Your task to perform on an android device: When is my next appointment? Image 0: 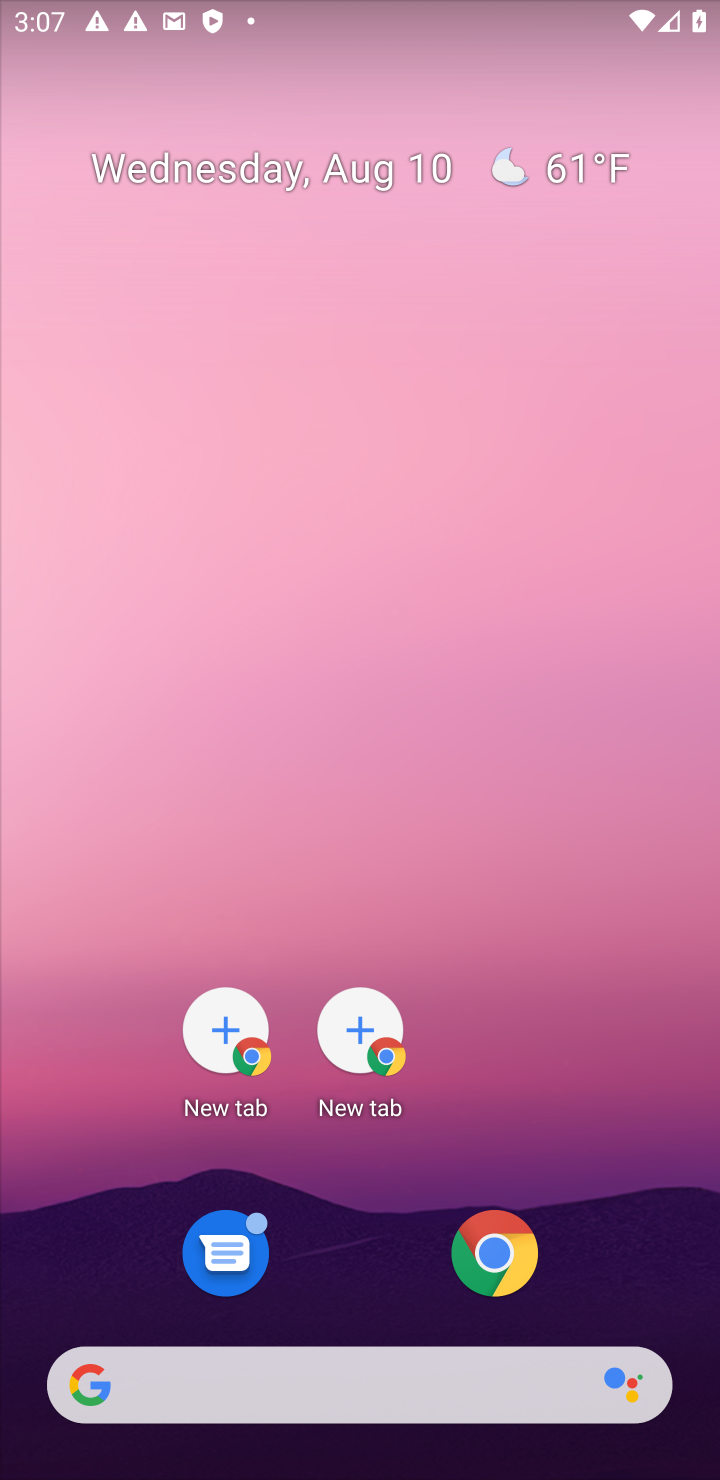
Step 0: drag from (533, 1055) to (569, 418)
Your task to perform on an android device: When is my next appointment? Image 1: 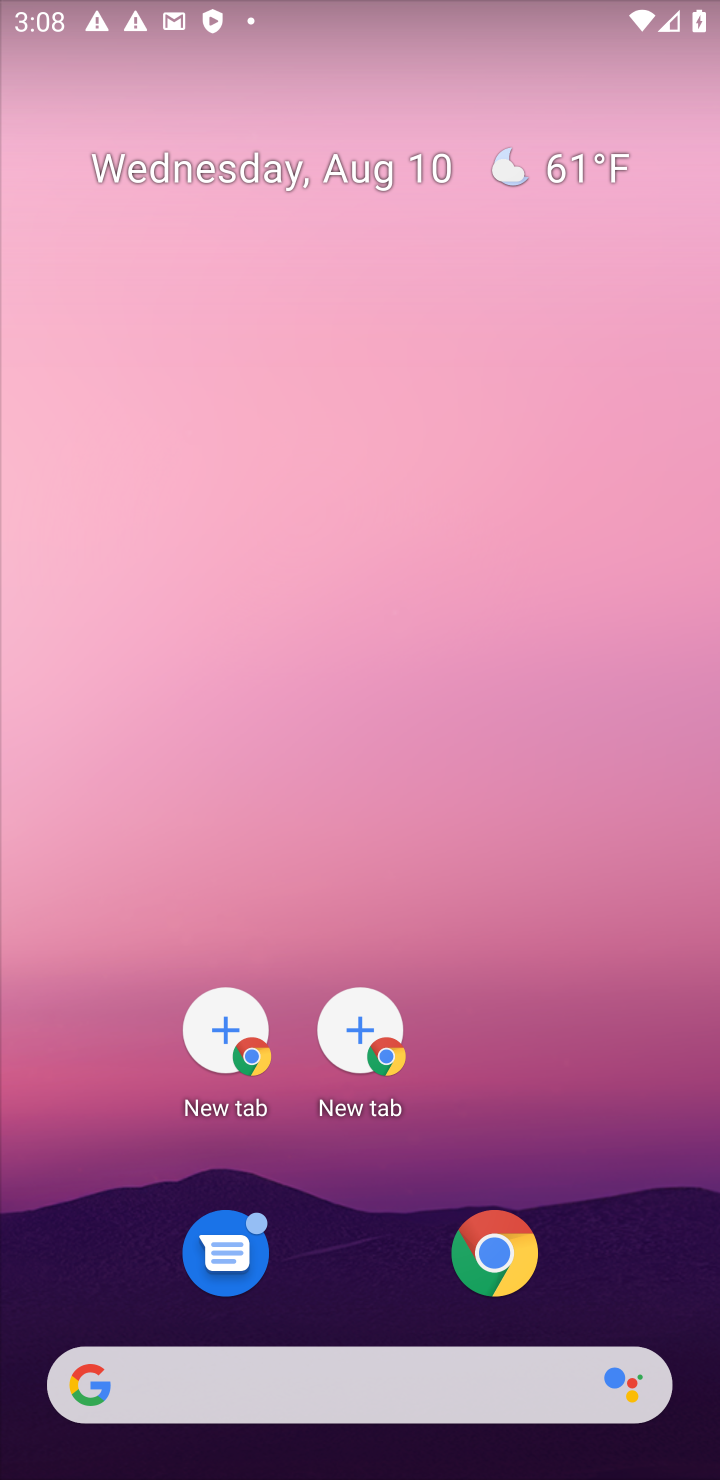
Step 1: click (501, 307)
Your task to perform on an android device: When is my next appointment? Image 2: 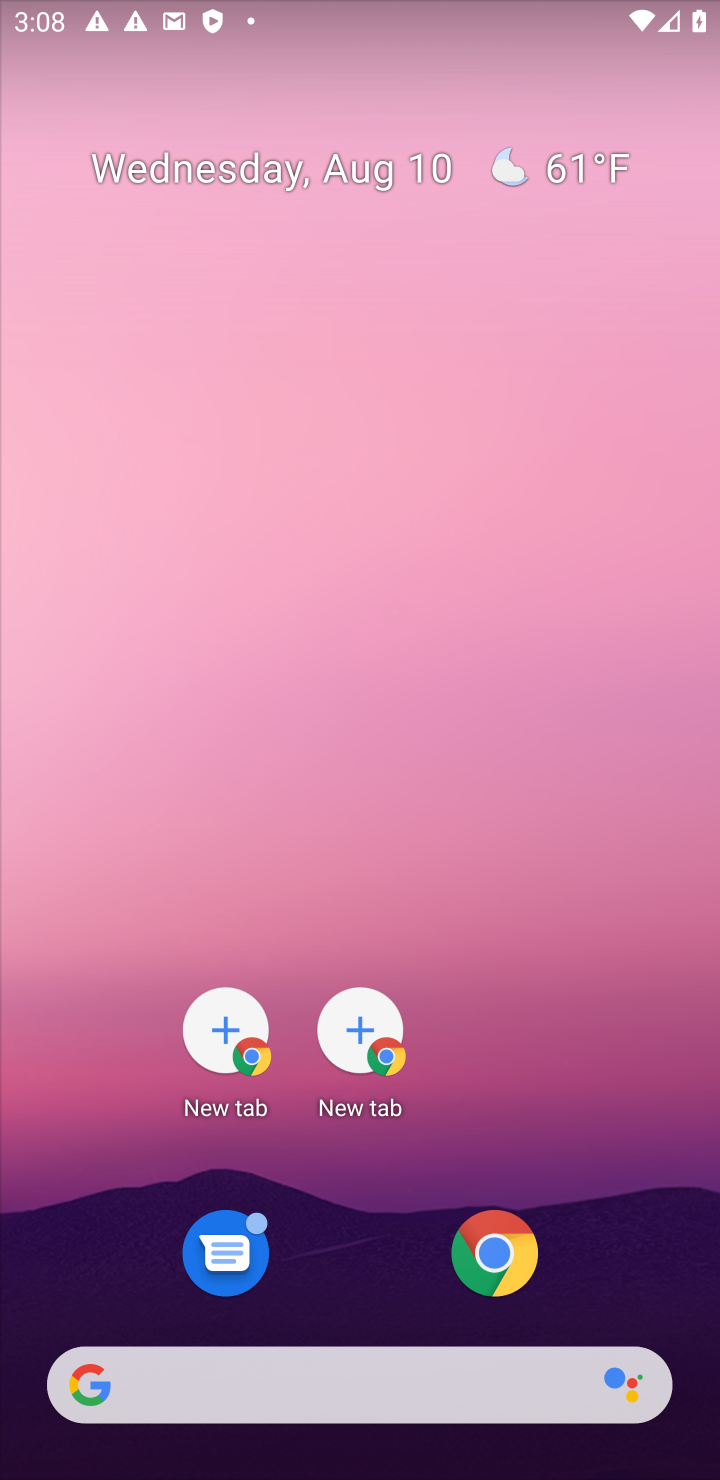
Step 2: drag from (466, 436) to (435, 23)
Your task to perform on an android device: When is my next appointment? Image 3: 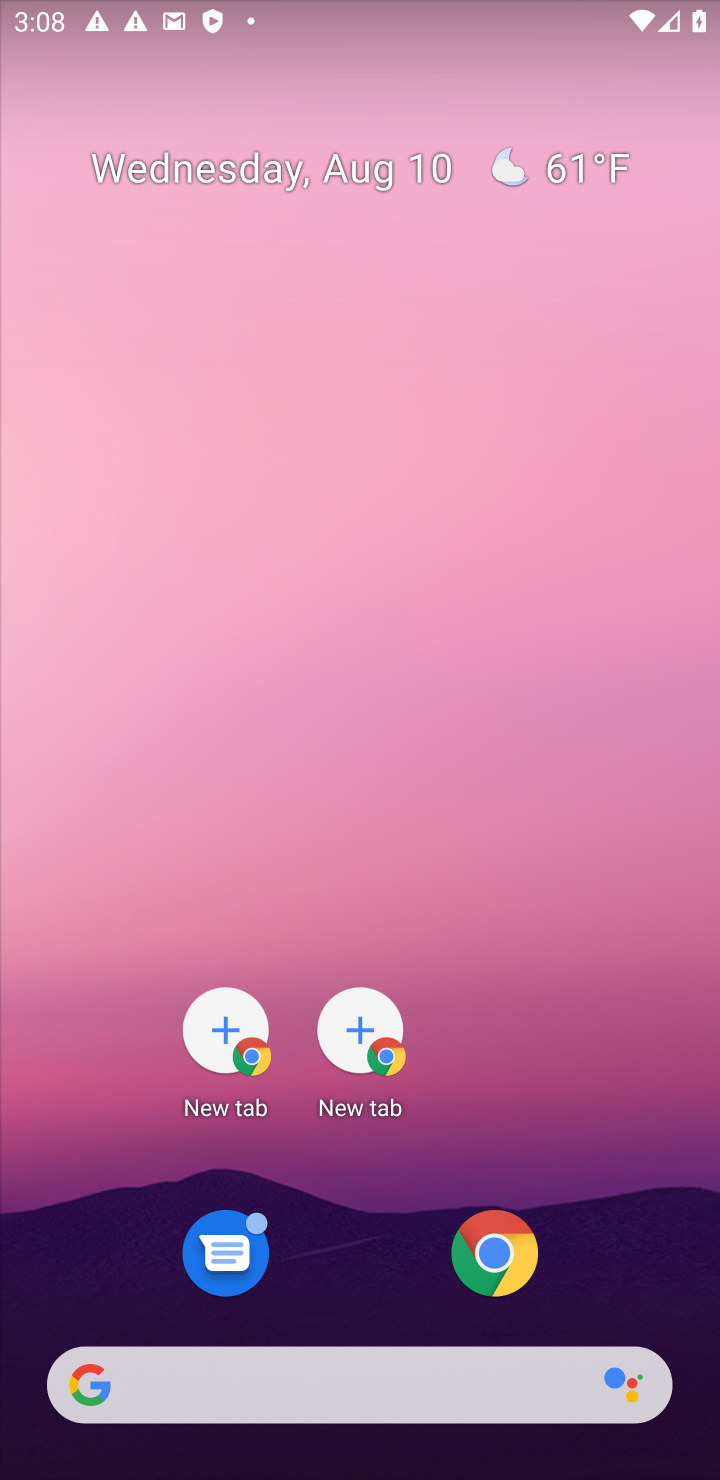
Step 3: drag from (504, 815) to (476, 186)
Your task to perform on an android device: When is my next appointment? Image 4: 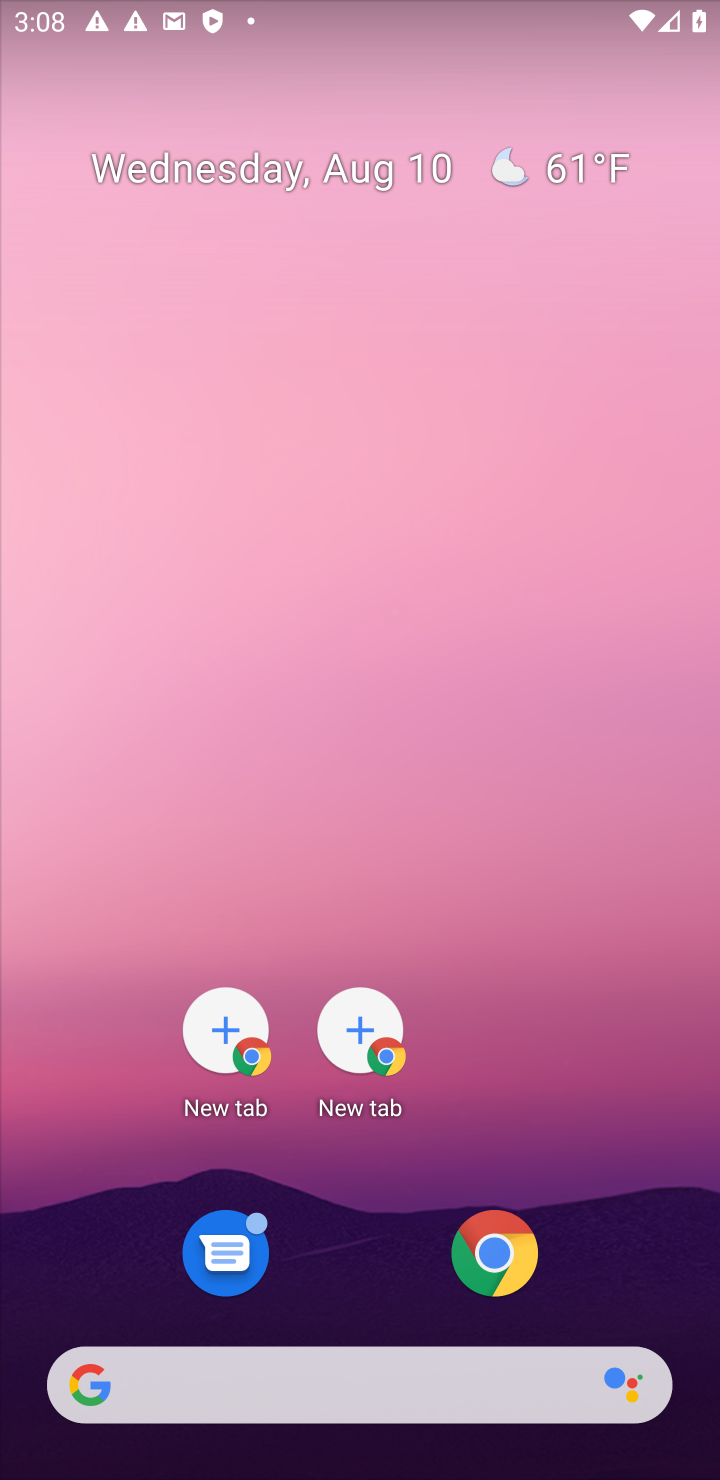
Step 4: drag from (546, 1060) to (441, 261)
Your task to perform on an android device: When is my next appointment? Image 5: 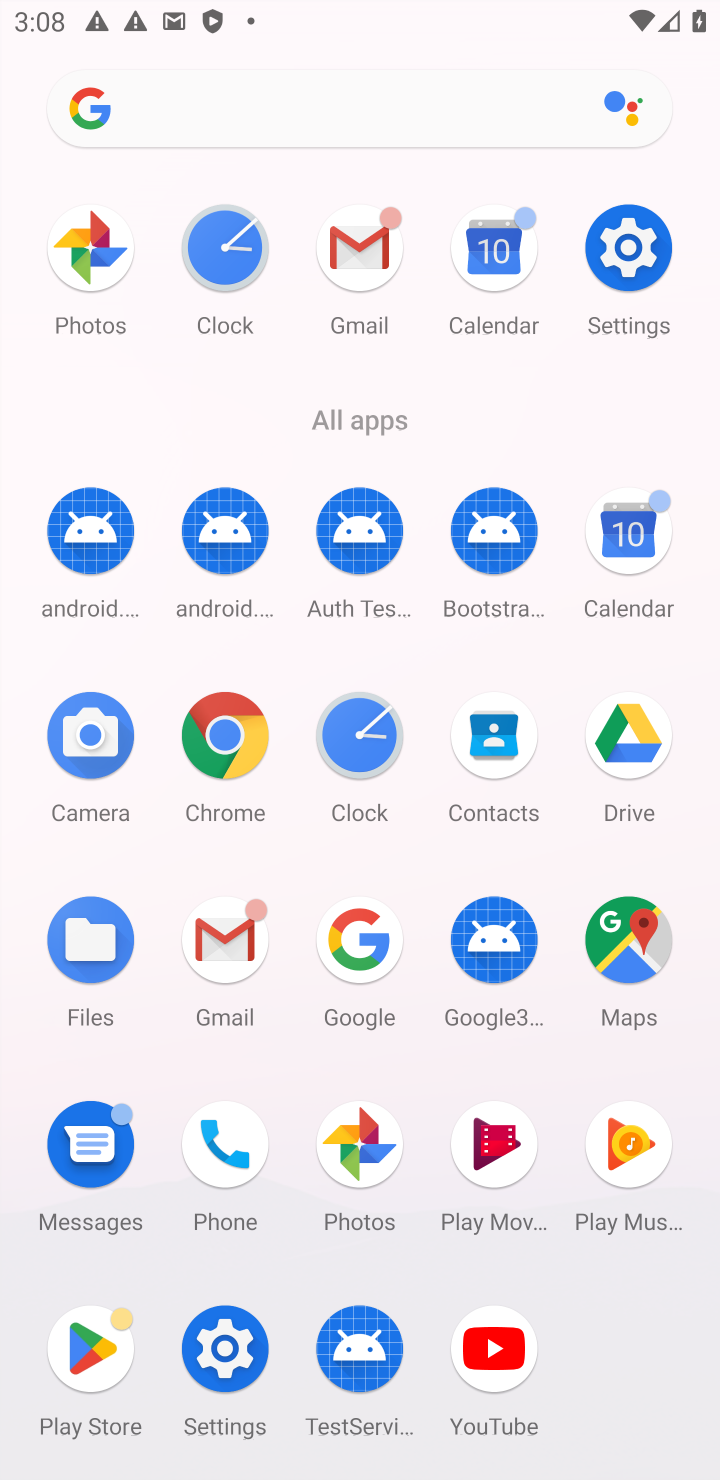
Step 5: click (631, 246)
Your task to perform on an android device: When is my next appointment? Image 6: 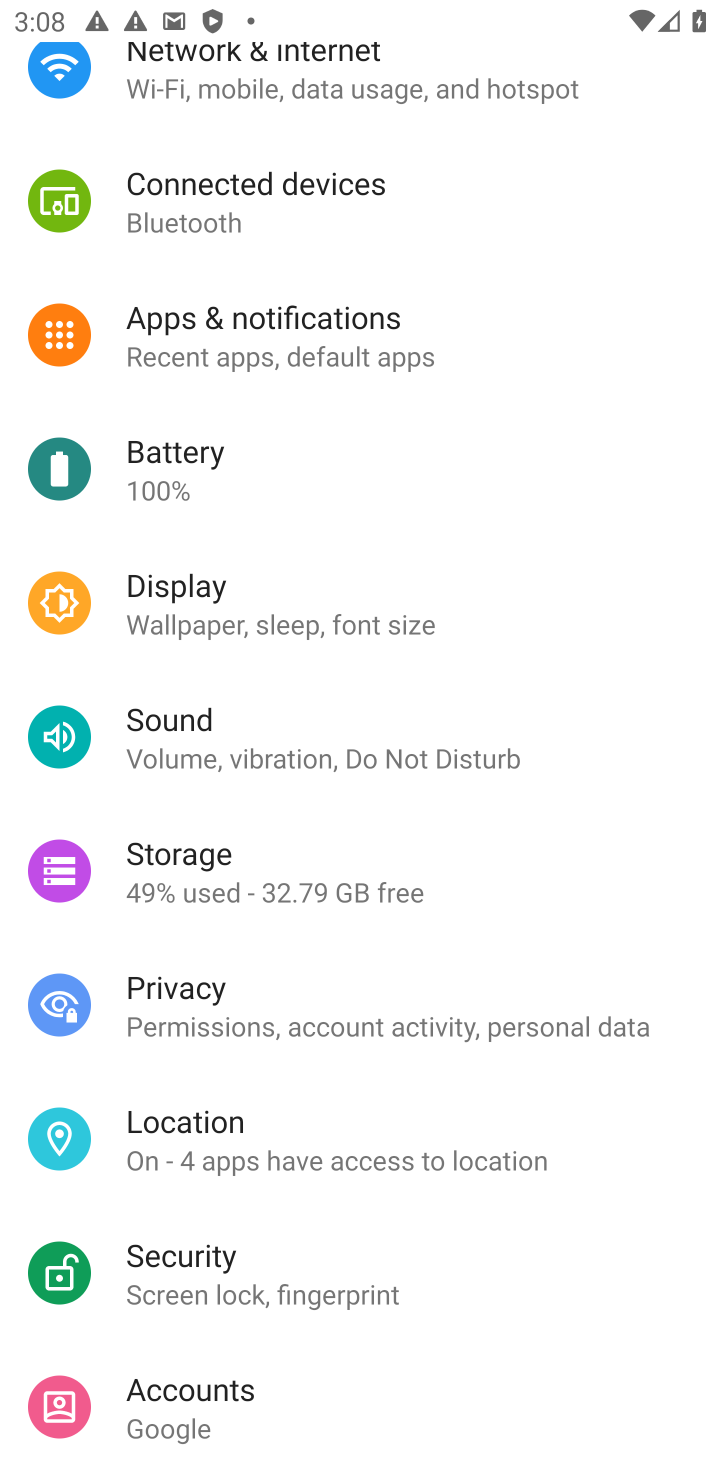
Step 6: task complete